Your task to perform on an android device: Open calendar and show me the fourth week of next month Image 0: 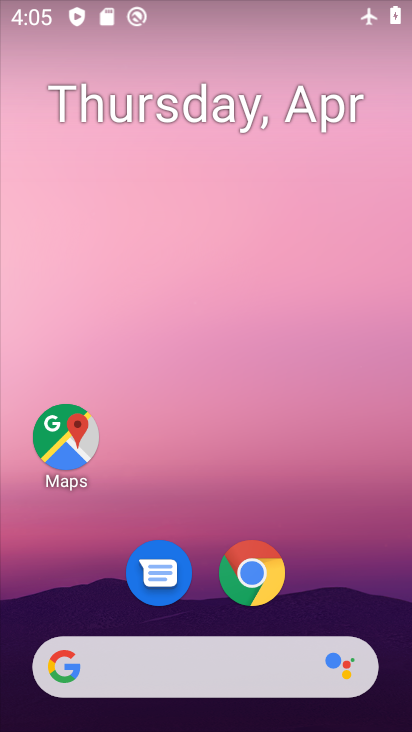
Step 0: drag from (329, 599) to (266, 182)
Your task to perform on an android device: Open calendar and show me the fourth week of next month Image 1: 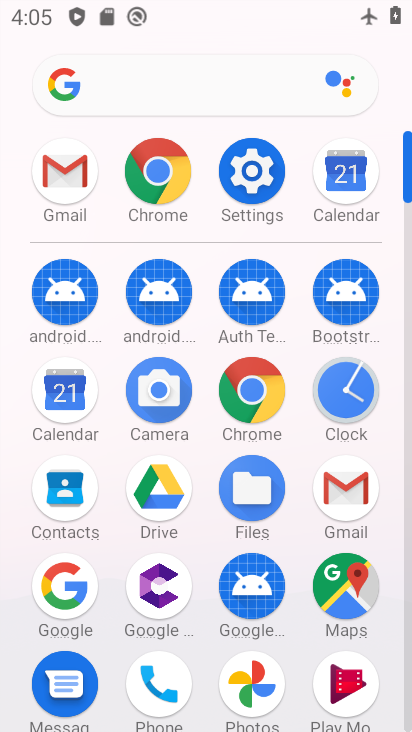
Step 1: click (66, 390)
Your task to perform on an android device: Open calendar and show me the fourth week of next month Image 2: 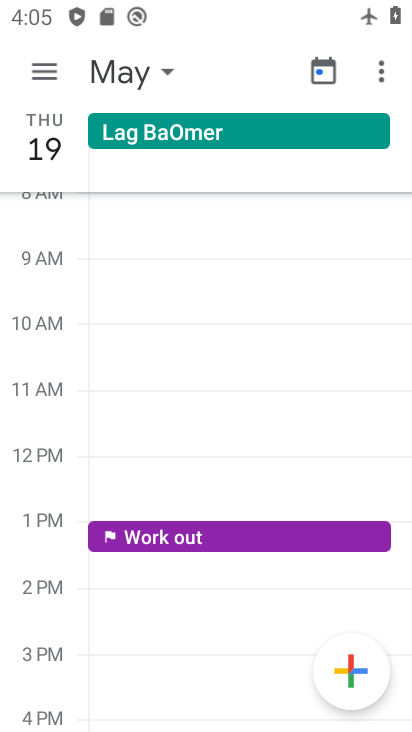
Step 2: click (131, 72)
Your task to perform on an android device: Open calendar and show me the fourth week of next month Image 3: 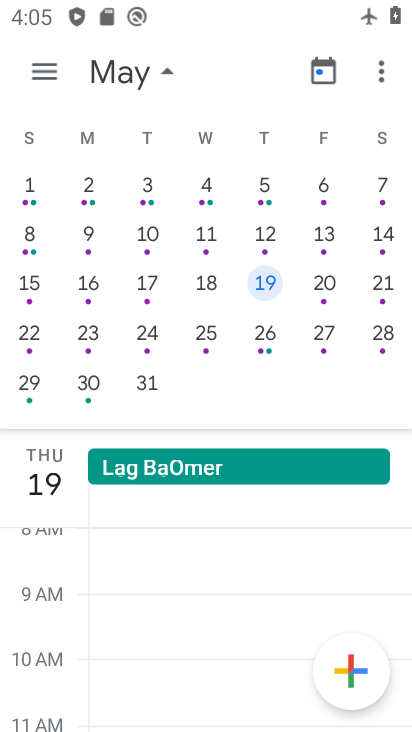
Step 3: drag from (375, 279) to (0, 193)
Your task to perform on an android device: Open calendar and show me the fourth week of next month Image 4: 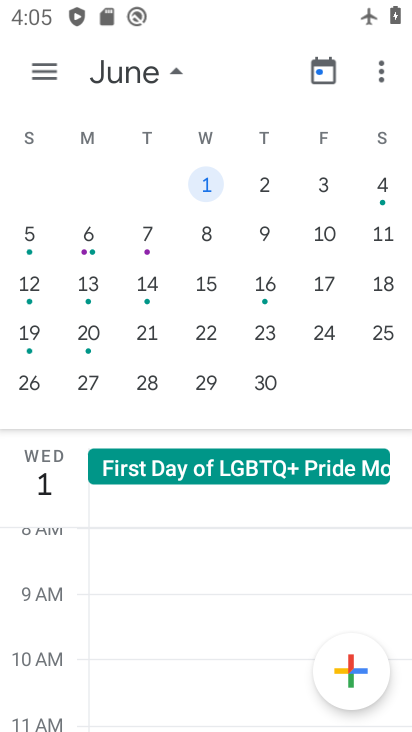
Step 4: click (154, 385)
Your task to perform on an android device: Open calendar and show me the fourth week of next month Image 5: 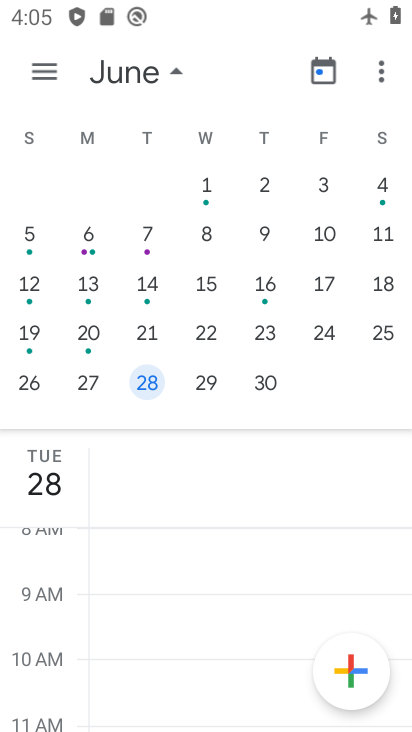
Step 5: task complete